Your task to perform on an android device: change notifications settings Image 0: 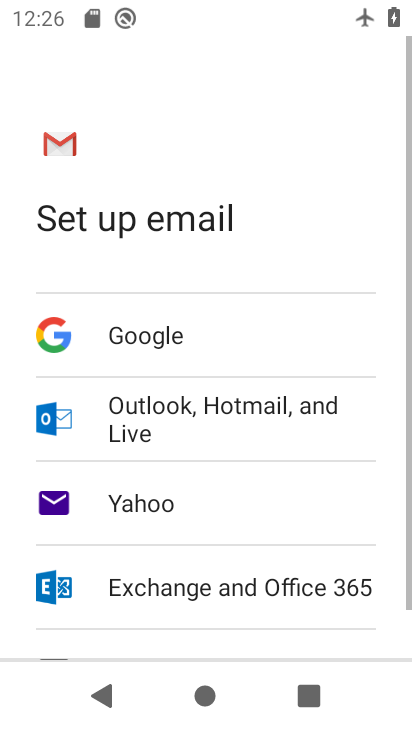
Step 0: press home button
Your task to perform on an android device: change notifications settings Image 1: 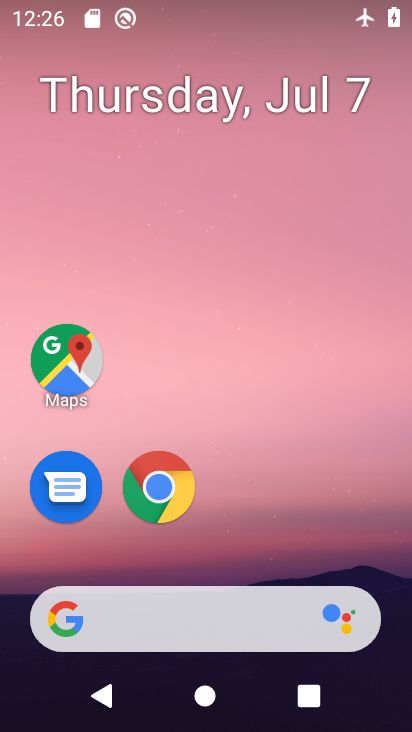
Step 1: drag from (333, 541) to (308, 116)
Your task to perform on an android device: change notifications settings Image 2: 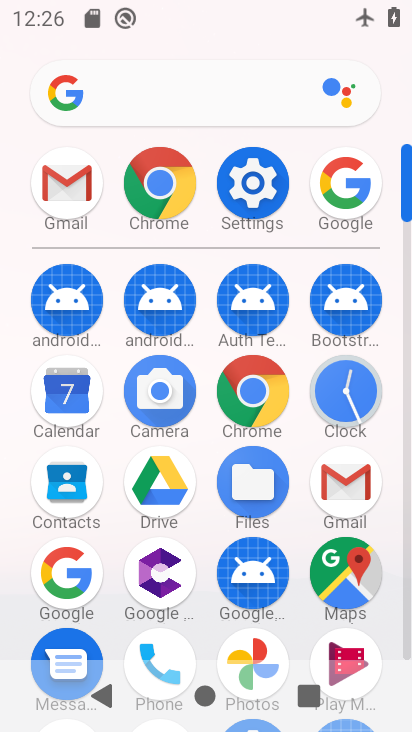
Step 2: click (274, 211)
Your task to perform on an android device: change notifications settings Image 3: 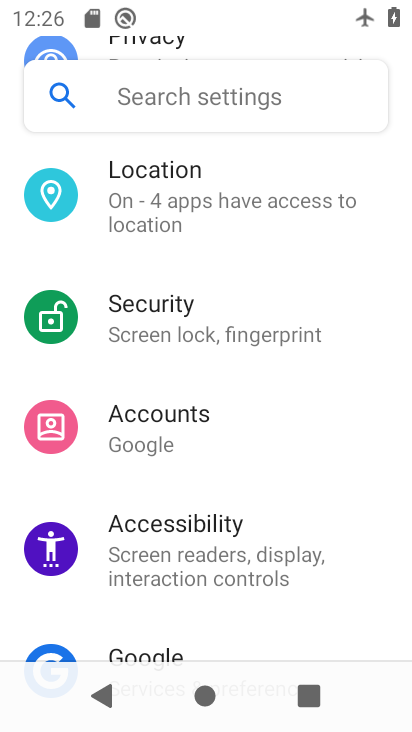
Step 3: drag from (375, 242) to (367, 356)
Your task to perform on an android device: change notifications settings Image 4: 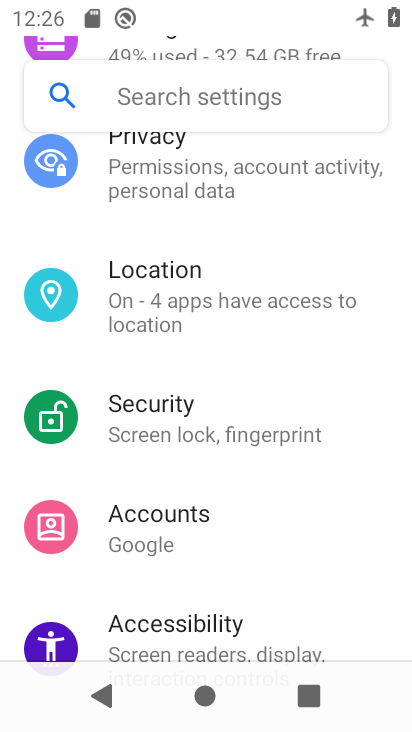
Step 4: drag from (364, 234) to (369, 368)
Your task to perform on an android device: change notifications settings Image 5: 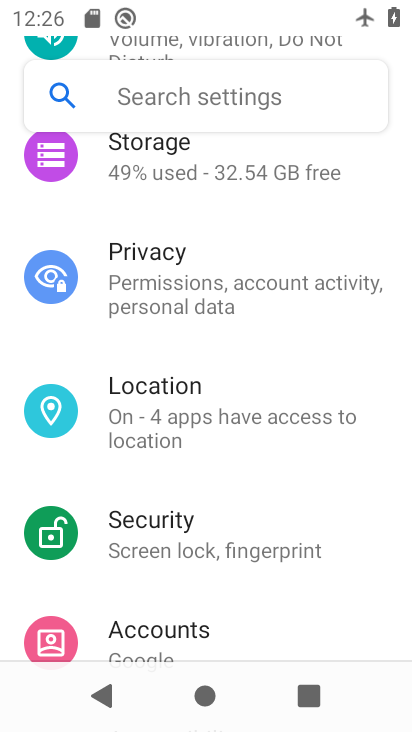
Step 5: drag from (369, 201) to (366, 346)
Your task to perform on an android device: change notifications settings Image 6: 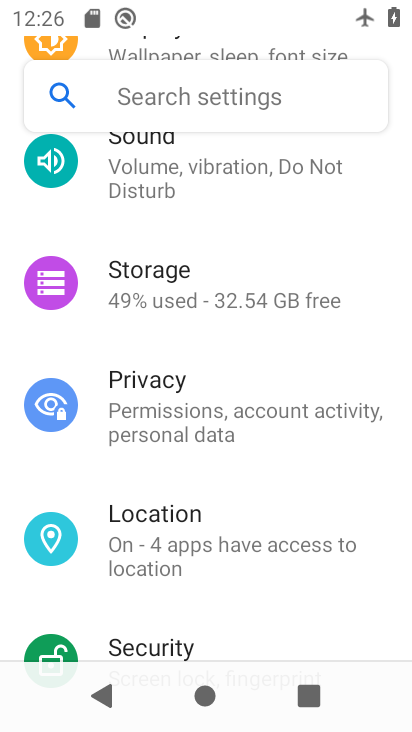
Step 6: drag from (373, 197) to (369, 350)
Your task to perform on an android device: change notifications settings Image 7: 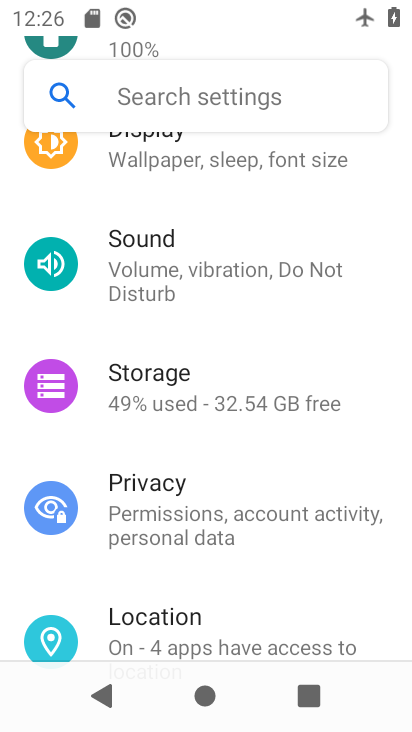
Step 7: drag from (360, 196) to (367, 319)
Your task to perform on an android device: change notifications settings Image 8: 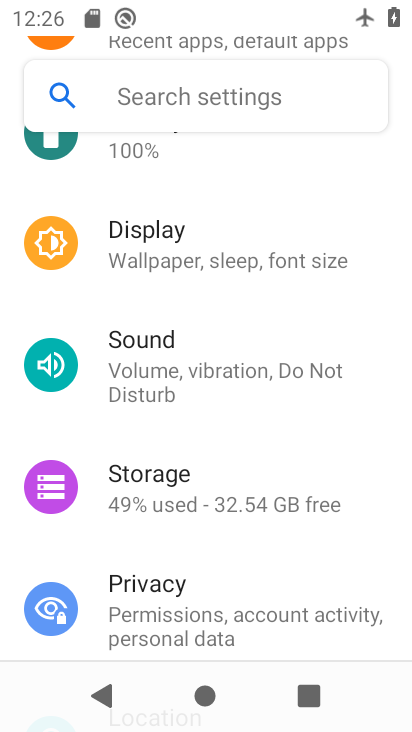
Step 8: drag from (362, 180) to (370, 330)
Your task to perform on an android device: change notifications settings Image 9: 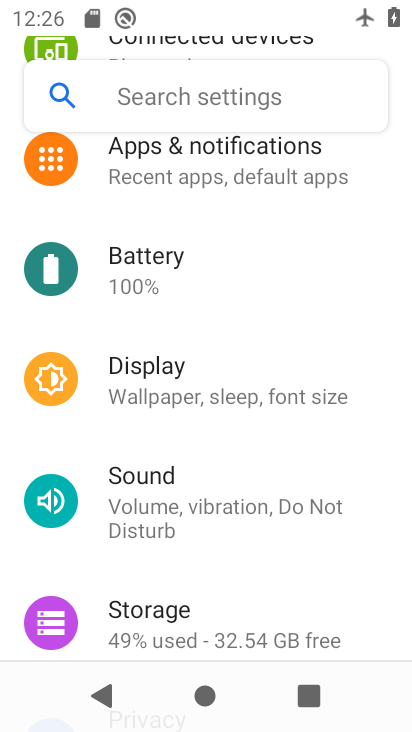
Step 9: drag from (368, 187) to (357, 361)
Your task to perform on an android device: change notifications settings Image 10: 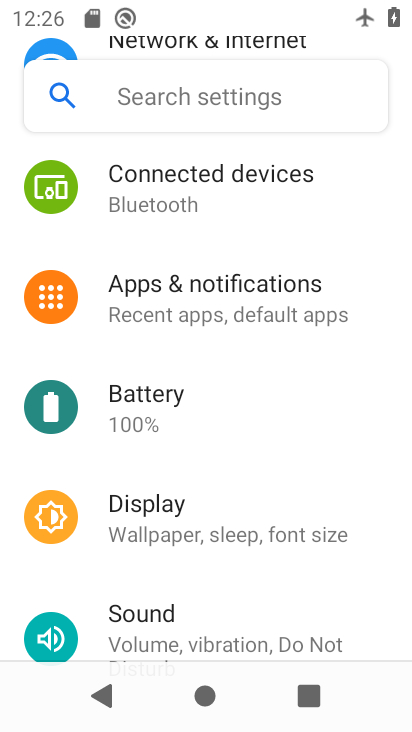
Step 10: drag from (347, 170) to (370, 349)
Your task to perform on an android device: change notifications settings Image 11: 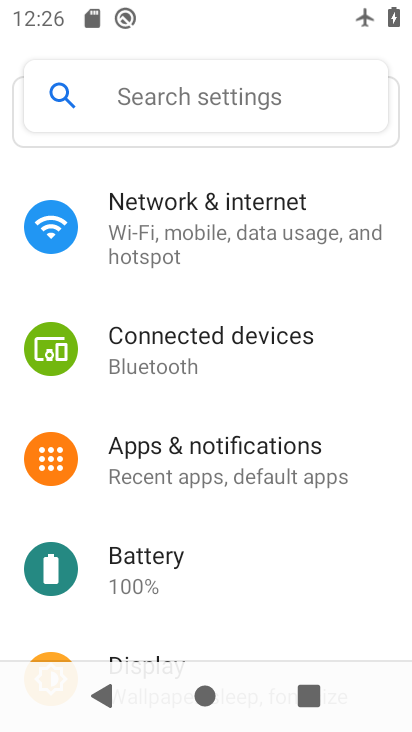
Step 11: drag from (360, 270) to (352, 406)
Your task to perform on an android device: change notifications settings Image 12: 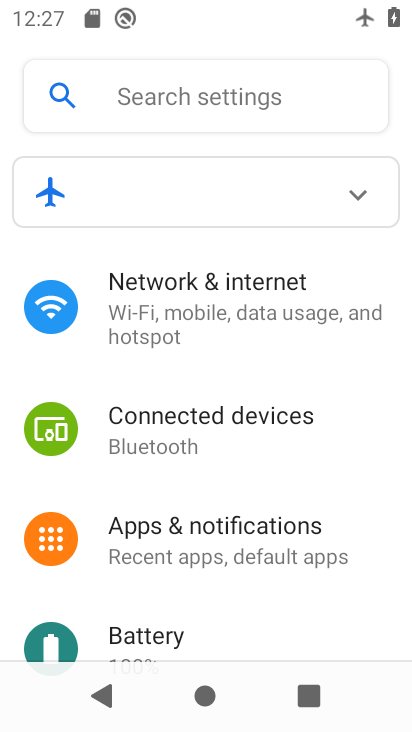
Step 12: click (301, 542)
Your task to perform on an android device: change notifications settings Image 13: 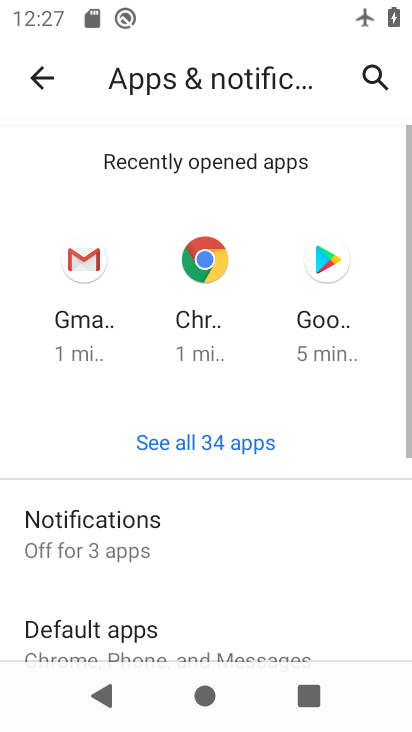
Step 13: drag from (290, 501) to (295, 292)
Your task to perform on an android device: change notifications settings Image 14: 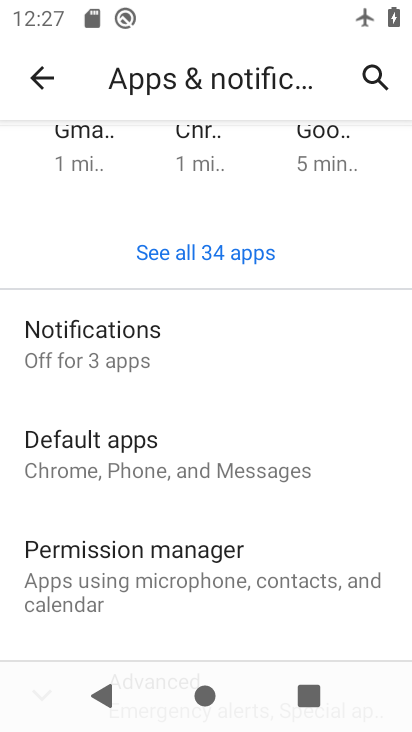
Step 14: click (136, 347)
Your task to perform on an android device: change notifications settings Image 15: 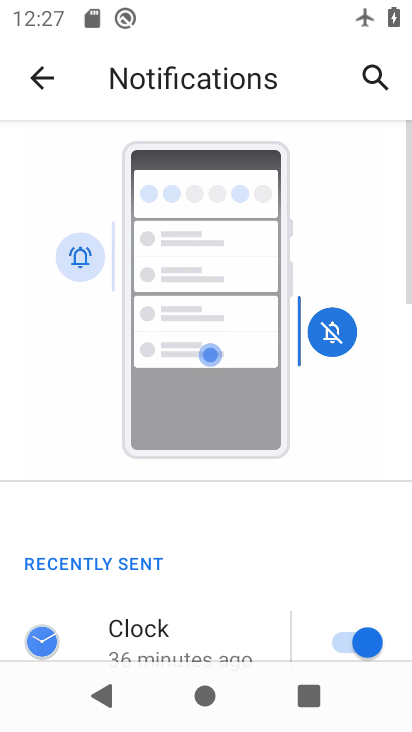
Step 15: drag from (345, 475) to (344, 347)
Your task to perform on an android device: change notifications settings Image 16: 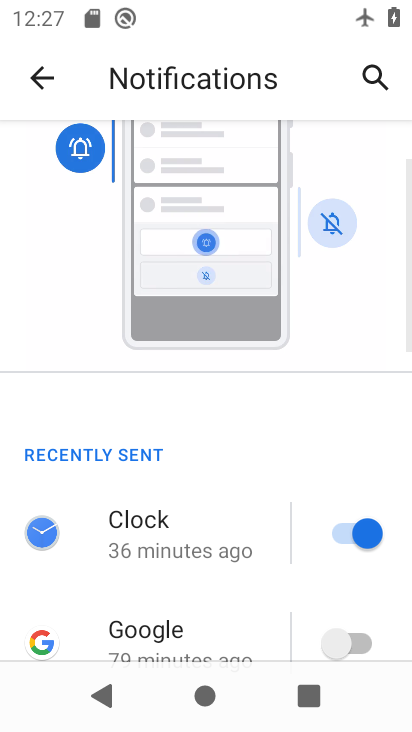
Step 16: drag from (320, 490) to (328, 340)
Your task to perform on an android device: change notifications settings Image 17: 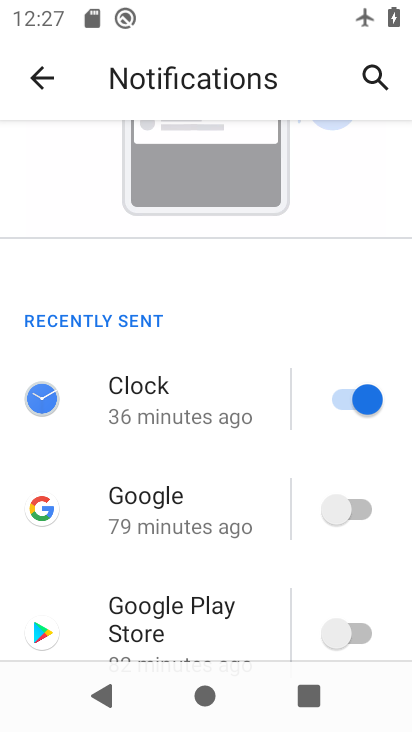
Step 17: click (367, 399)
Your task to perform on an android device: change notifications settings Image 18: 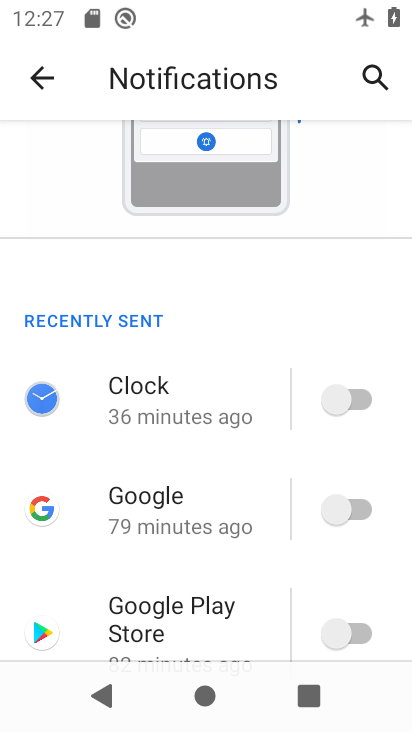
Step 18: task complete